Your task to perform on an android device: Open calendar and show me the first week of next month Image 0: 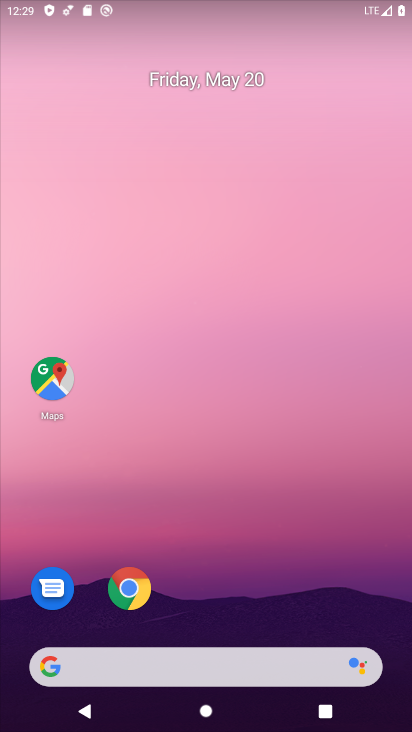
Step 0: drag from (385, 616) to (328, 35)
Your task to perform on an android device: Open calendar and show me the first week of next month Image 1: 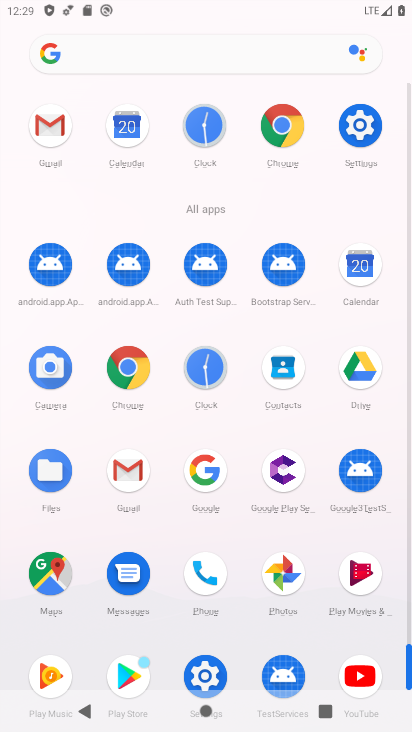
Step 1: click (360, 259)
Your task to perform on an android device: Open calendar and show me the first week of next month Image 2: 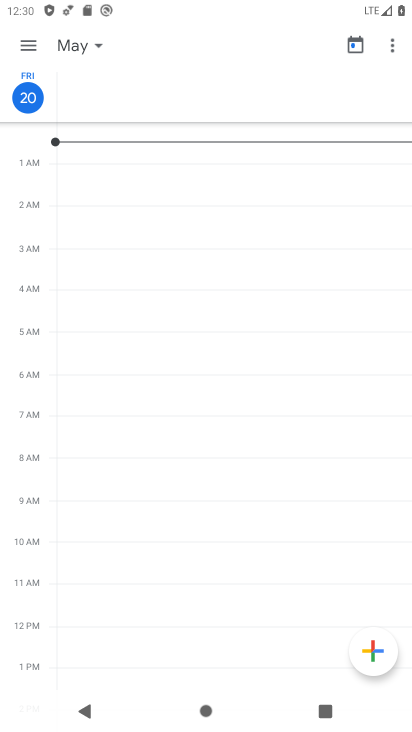
Step 2: click (24, 41)
Your task to perform on an android device: Open calendar and show me the first week of next month Image 3: 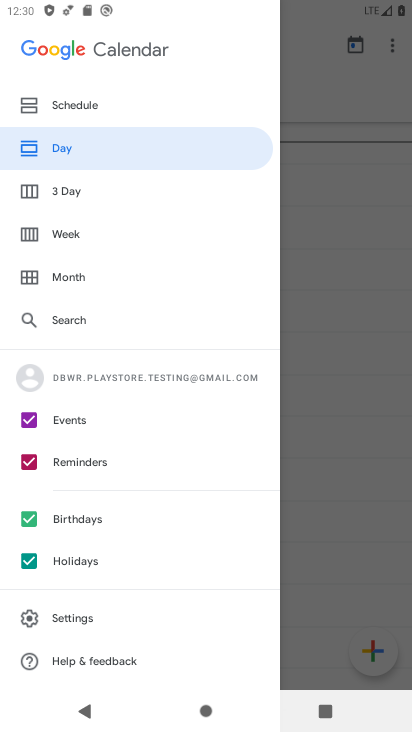
Step 3: click (66, 229)
Your task to perform on an android device: Open calendar and show me the first week of next month Image 4: 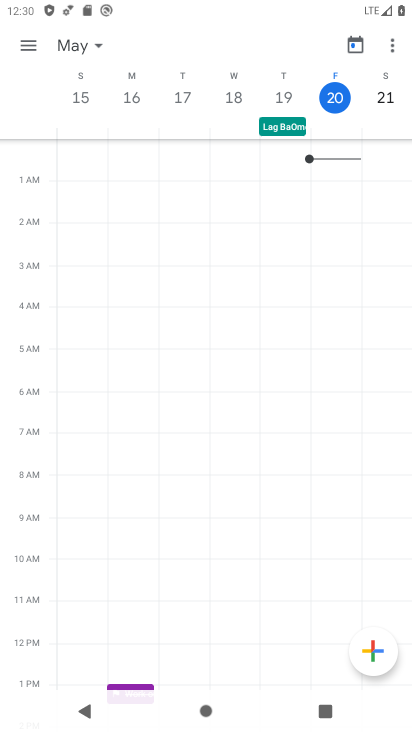
Step 4: click (94, 41)
Your task to perform on an android device: Open calendar and show me the first week of next month Image 5: 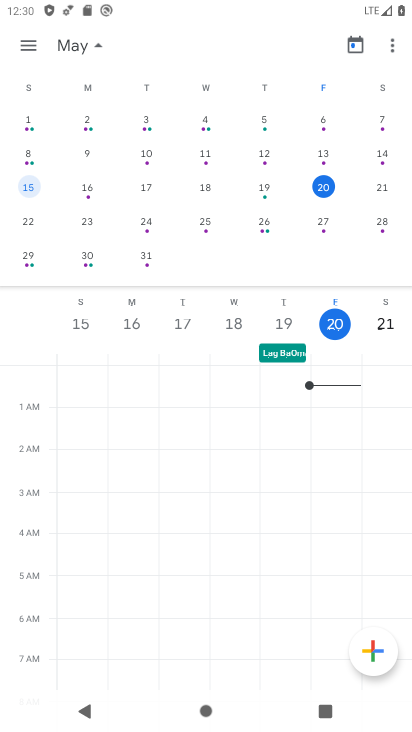
Step 5: task complete